Your task to perform on an android device: Go to Yahoo.com Image 0: 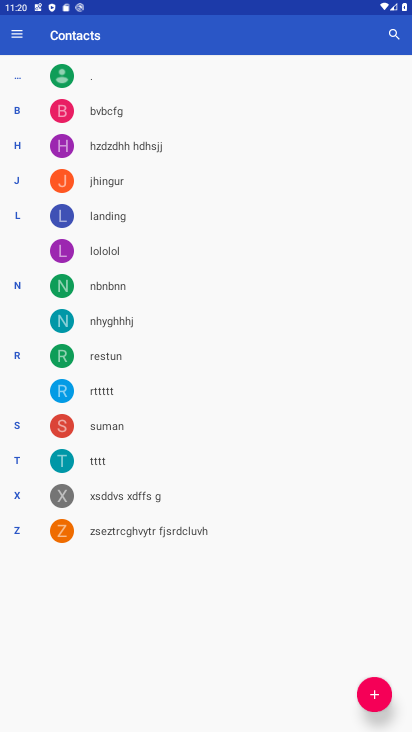
Step 0: press home button
Your task to perform on an android device: Go to Yahoo.com Image 1: 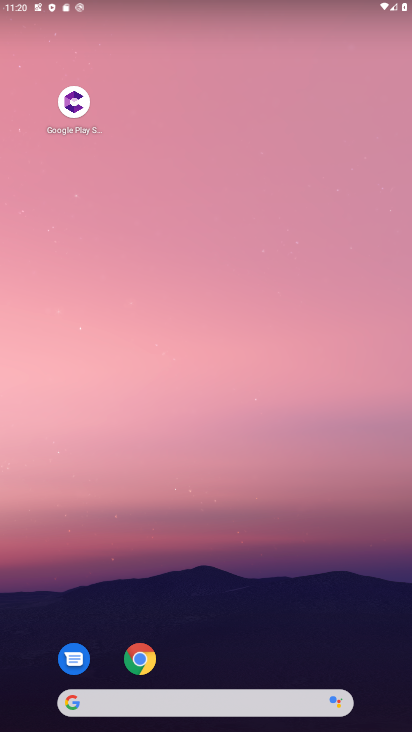
Step 1: click (140, 657)
Your task to perform on an android device: Go to Yahoo.com Image 2: 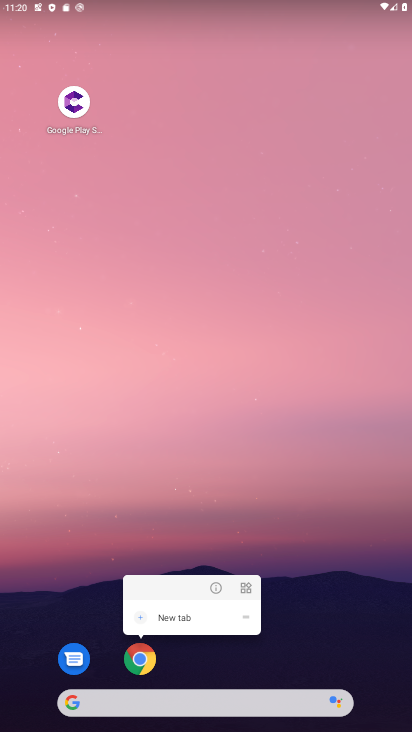
Step 2: click (140, 653)
Your task to perform on an android device: Go to Yahoo.com Image 3: 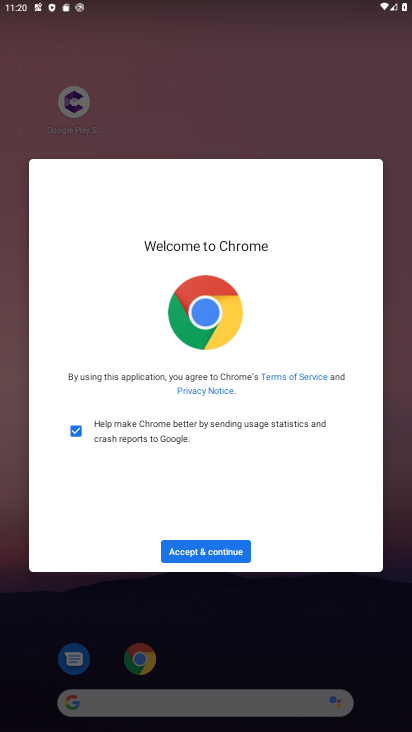
Step 3: click (213, 553)
Your task to perform on an android device: Go to Yahoo.com Image 4: 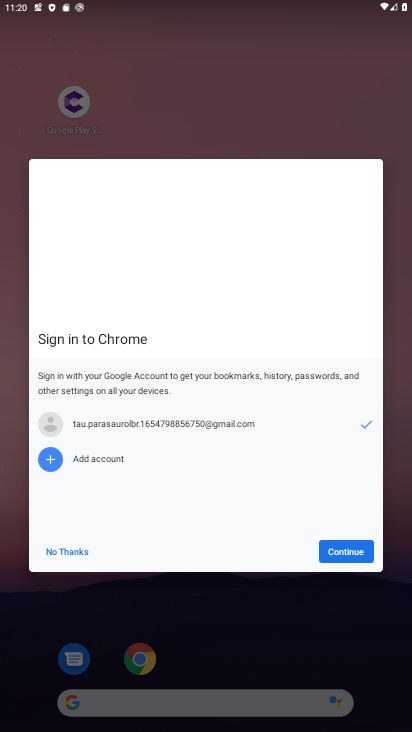
Step 4: click (351, 546)
Your task to perform on an android device: Go to Yahoo.com Image 5: 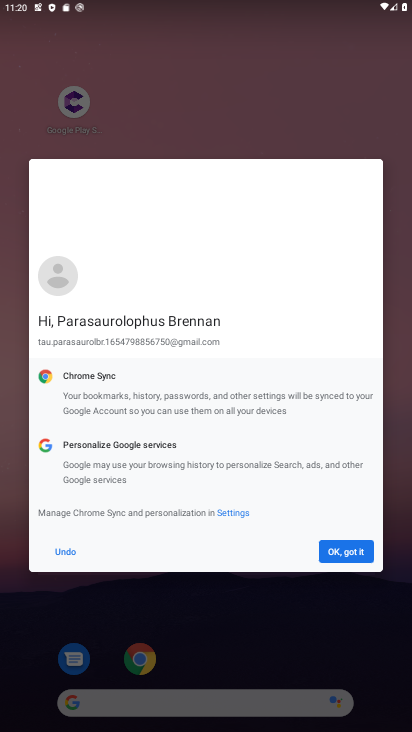
Step 5: click (351, 546)
Your task to perform on an android device: Go to Yahoo.com Image 6: 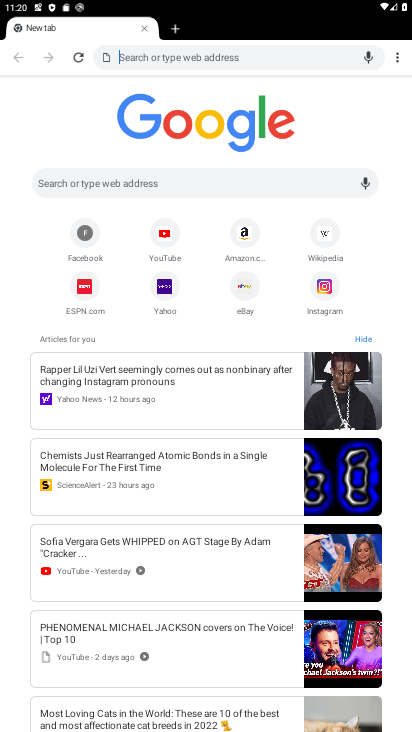
Step 6: click (163, 287)
Your task to perform on an android device: Go to Yahoo.com Image 7: 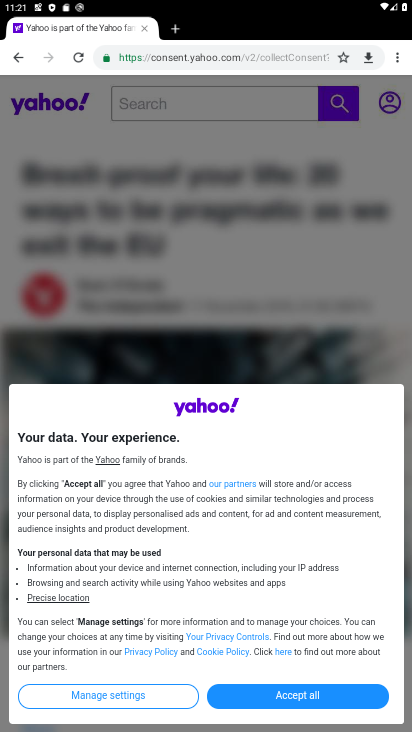
Step 7: task complete